Your task to perform on an android device: delete a single message in the gmail app Image 0: 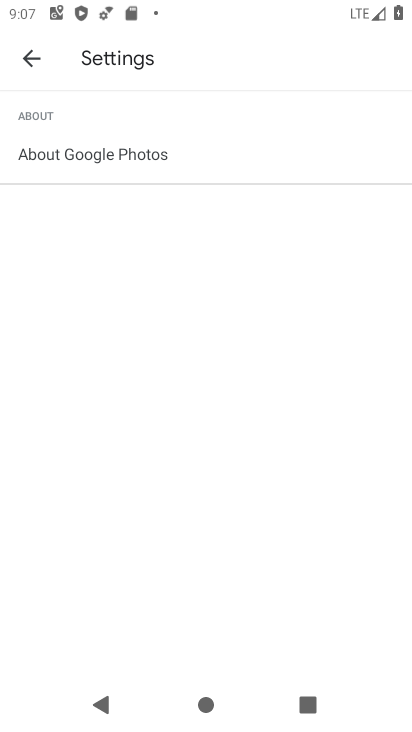
Step 0: press home button
Your task to perform on an android device: delete a single message in the gmail app Image 1: 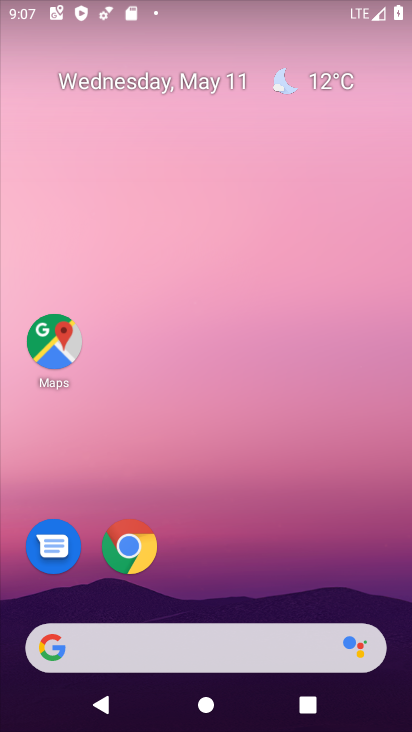
Step 1: drag from (365, 597) to (241, 72)
Your task to perform on an android device: delete a single message in the gmail app Image 2: 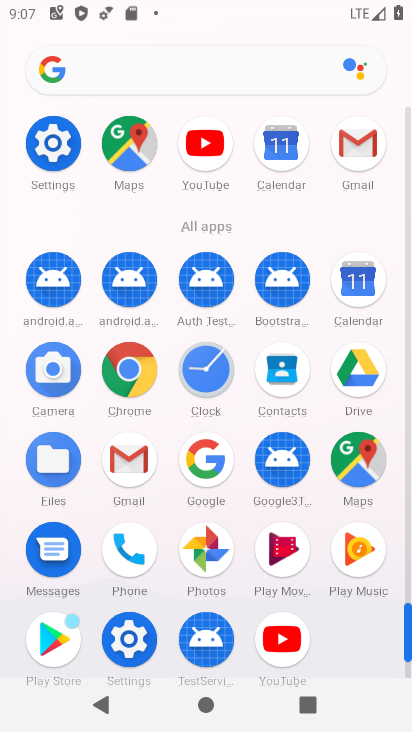
Step 2: click (128, 462)
Your task to perform on an android device: delete a single message in the gmail app Image 3: 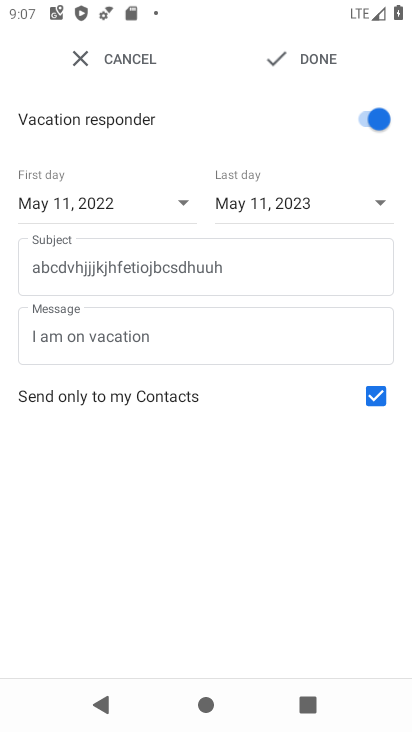
Step 3: press back button
Your task to perform on an android device: delete a single message in the gmail app Image 4: 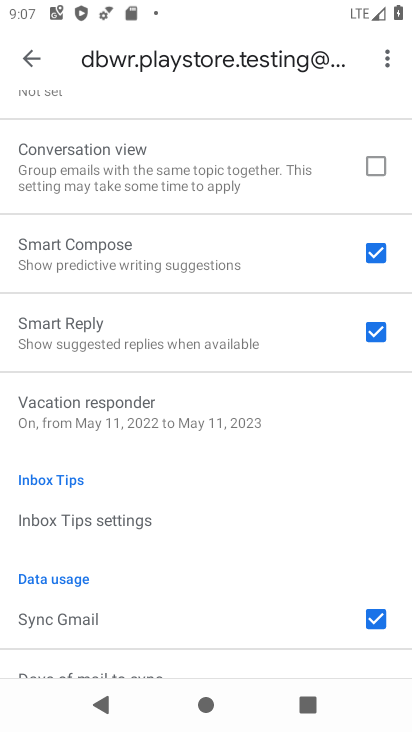
Step 4: press back button
Your task to perform on an android device: delete a single message in the gmail app Image 5: 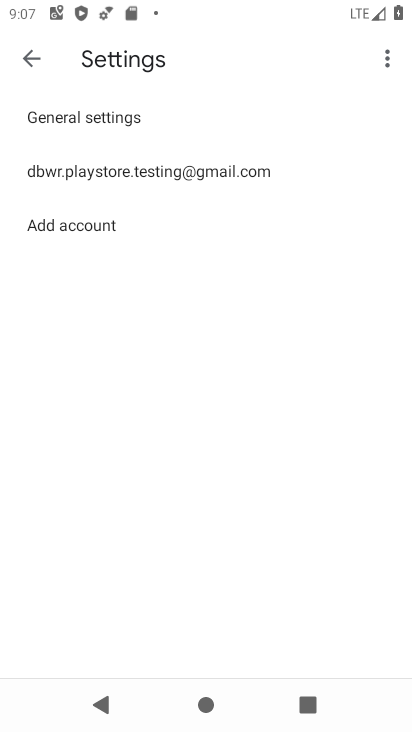
Step 5: press back button
Your task to perform on an android device: delete a single message in the gmail app Image 6: 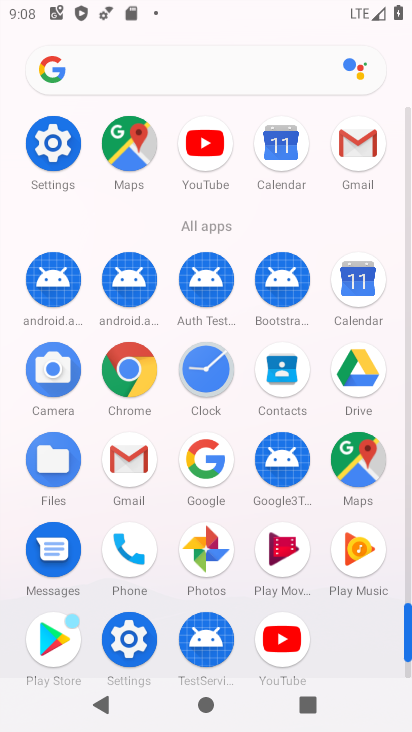
Step 6: click (128, 463)
Your task to perform on an android device: delete a single message in the gmail app Image 7: 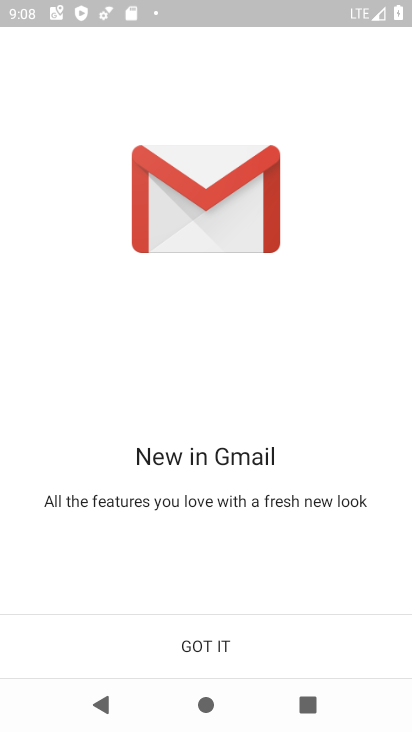
Step 7: click (192, 643)
Your task to perform on an android device: delete a single message in the gmail app Image 8: 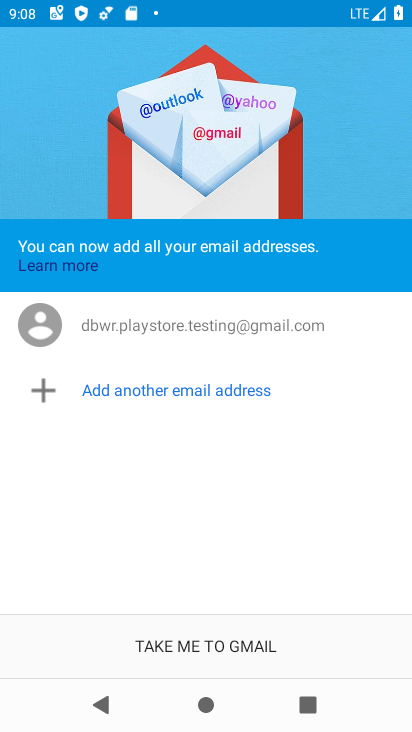
Step 8: click (192, 643)
Your task to perform on an android device: delete a single message in the gmail app Image 9: 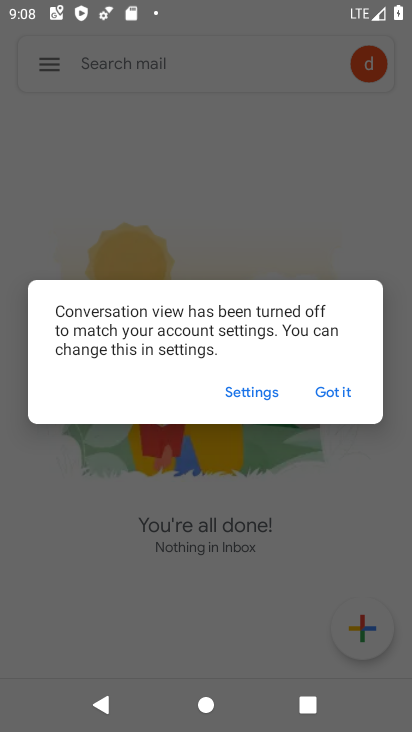
Step 9: click (327, 394)
Your task to perform on an android device: delete a single message in the gmail app Image 10: 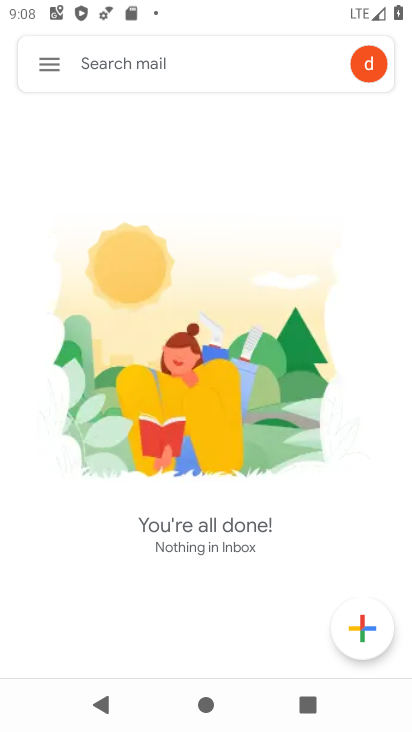
Step 10: click (47, 65)
Your task to perform on an android device: delete a single message in the gmail app Image 11: 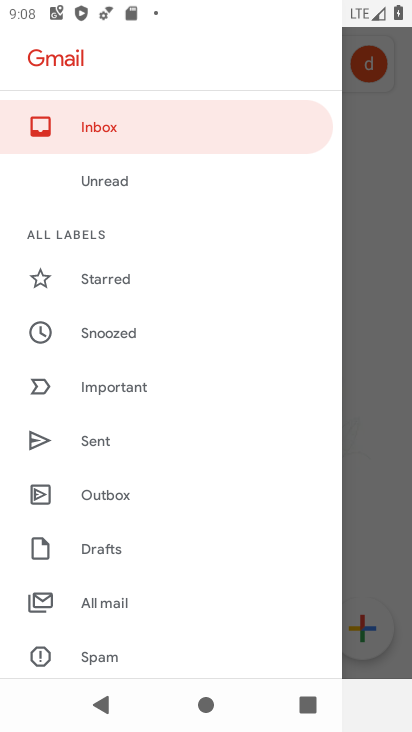
Step 11: drag from (175, 549) to (176, 455)
Your task to perform on an android device: delete a single message in the gmail app Image 12: 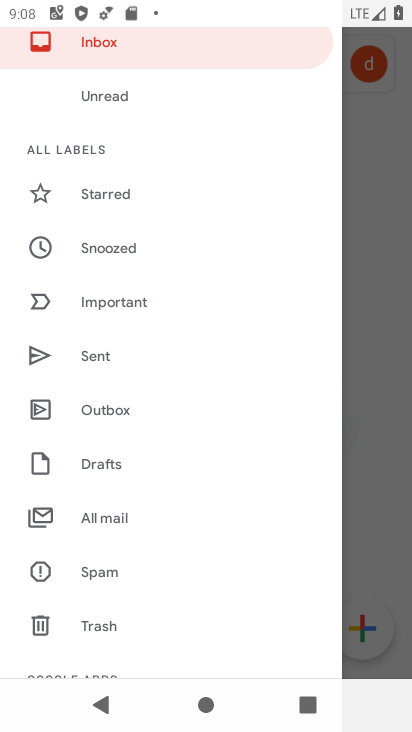
Step 12: click (111, 507)
Your task to perform on an android device: delete a single message in the gmail app Image 13: 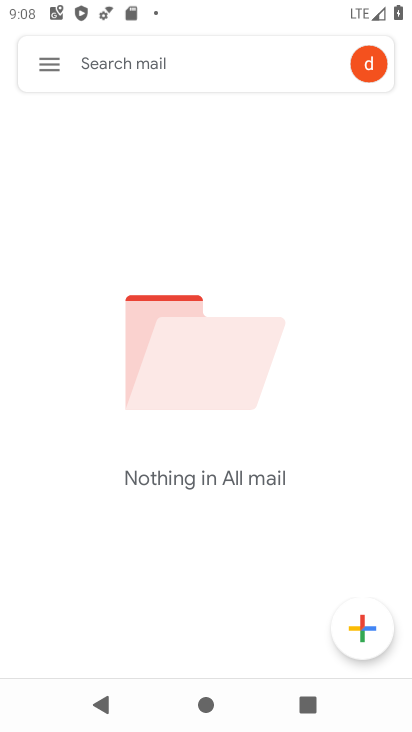
Step 13: task complete